Your task to perform on an android device: Open Chrome and go to the settings page Image 0: 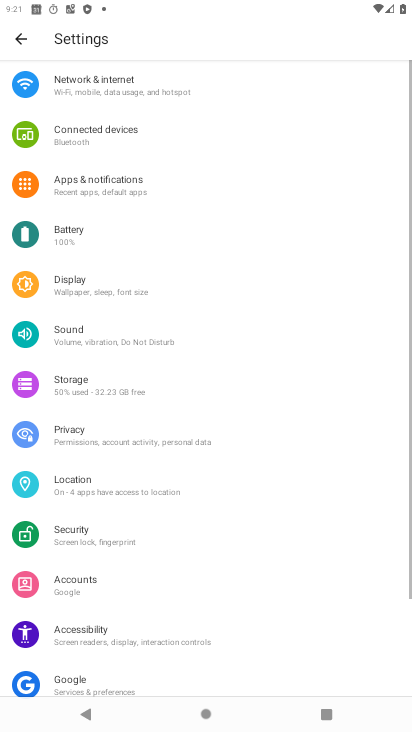
Step 0: press home button
Your task to perform on an android device: Open Chrome and go to the settings page Image 1: 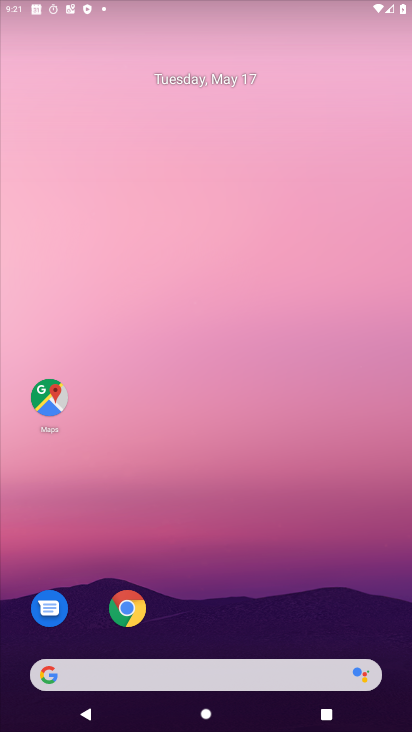
Step 1: drag from (381, 585) to (381, 73)
Your task to perform on an android device: Open Chrome and go to the settings page Image 2: 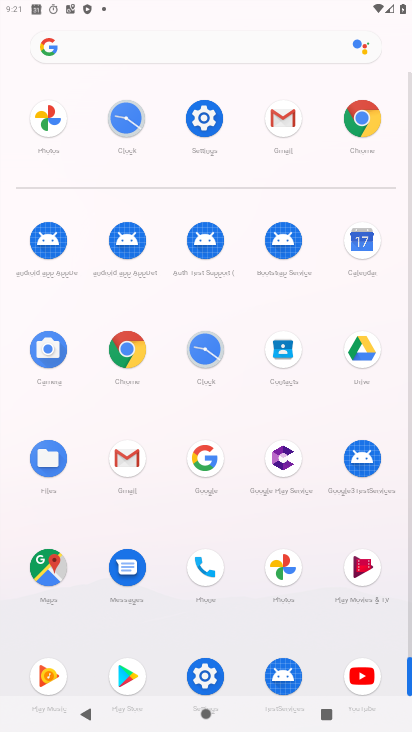
Step 2: click (131, 346)
Your task to perform on an android device: Open Chrome and go to the settings page Image 3: 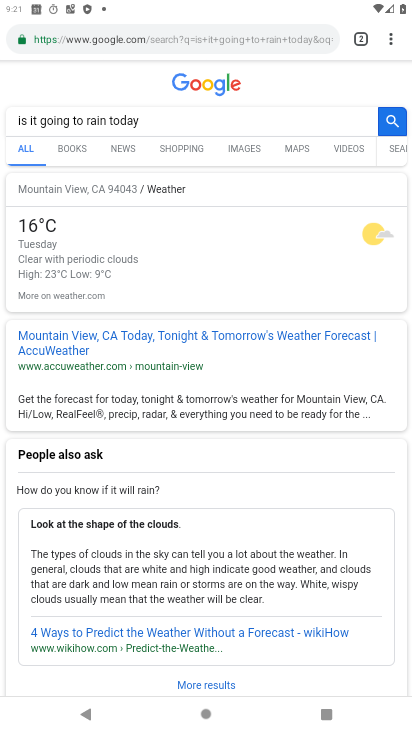
Step 3: task complete